Your task to perform on an android device: clear history in the chrome app Image 0: 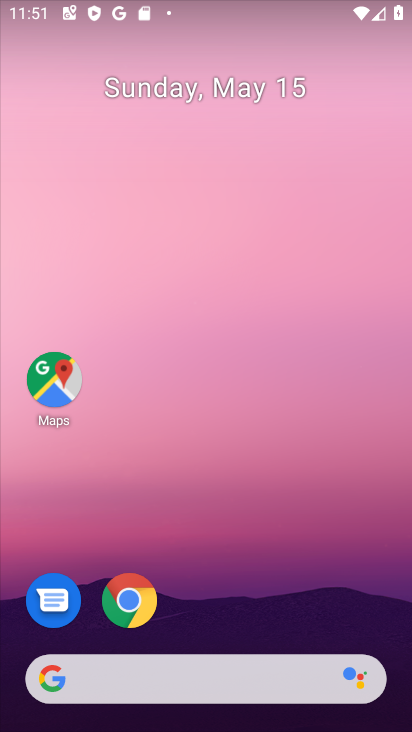
Step 0: click (133, 595)
Your task to perform on an android device: clear history in the chrome app Image 1: 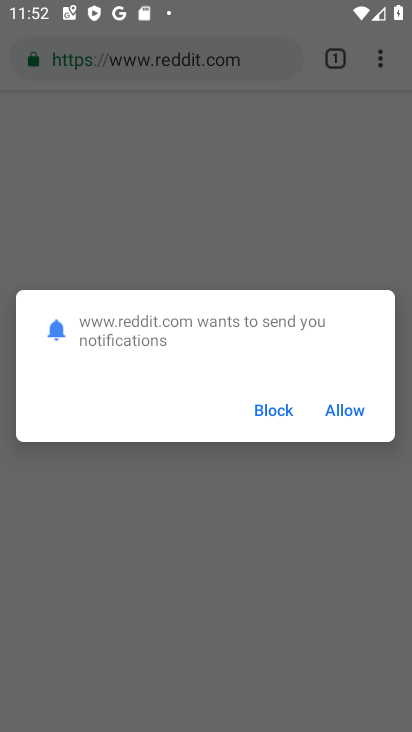
Step 1: click (321, 406)
Your task to perform on an android device: clear history in the chrome app Image 2: 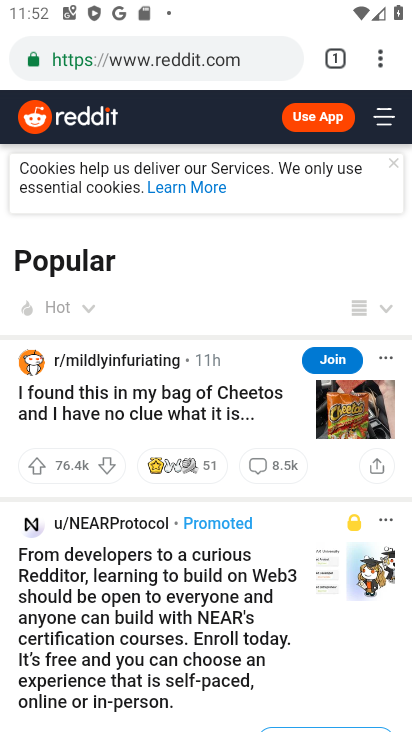
Step 2: click (386, 68)
Your task to perform on an android device: clear history in the chrome app Image 3: 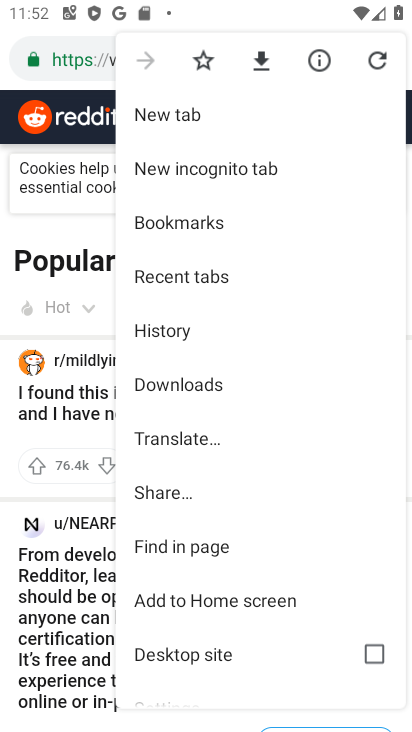
Step 3: click (155, 323)
Your task to perform on an android device: clear history in the chrome app Image 4: 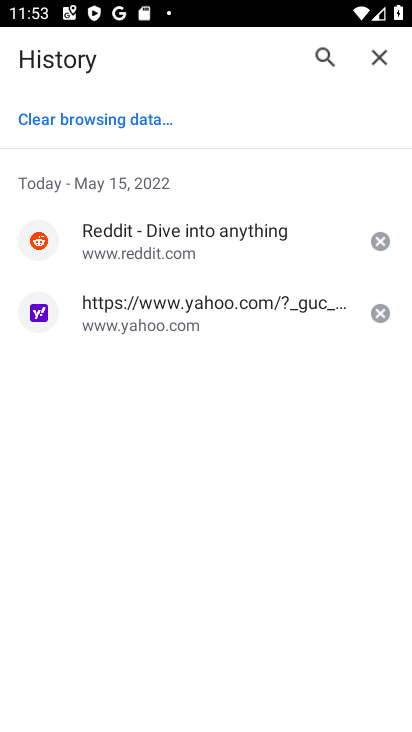
Step 4: click (61, 128)
Your task to perform on an android device: clear history in the chrome app Image 5: 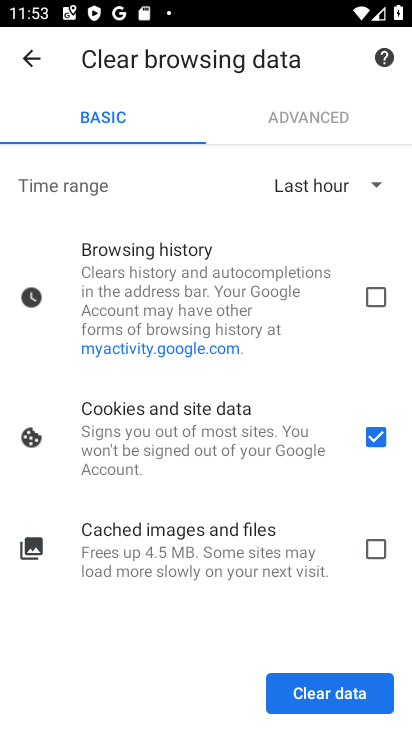
Step 5: click (362, 700)
Your task to perform on an android device: clear history in the chrome app Image 6: 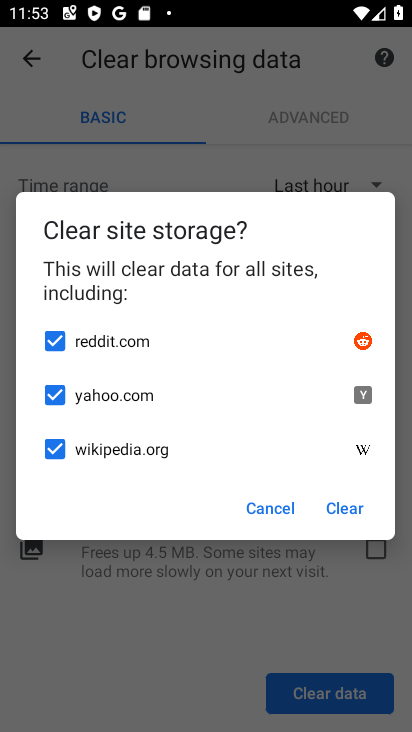
Step 6: task complete